Your task to perform on an android device: Open Maps and search for coffee Image 0: 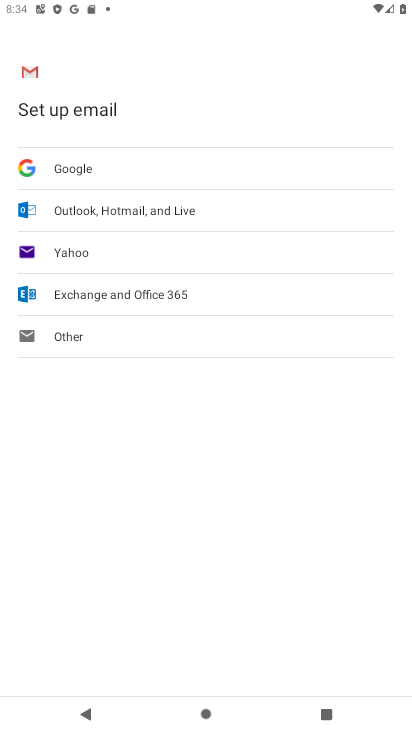
Step 0: press home button
Your task to perform on an android device: Open Maps and search for coffee Image 1: 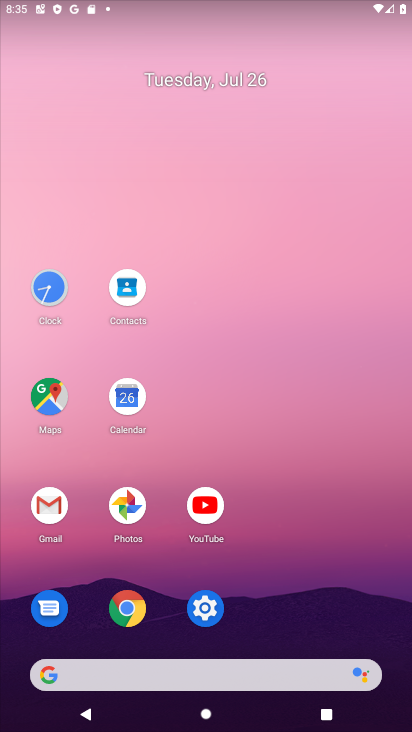
Step 1: click (36, 402)
Your task to perform on an android device: Open Maps and search for coffee Image 2: 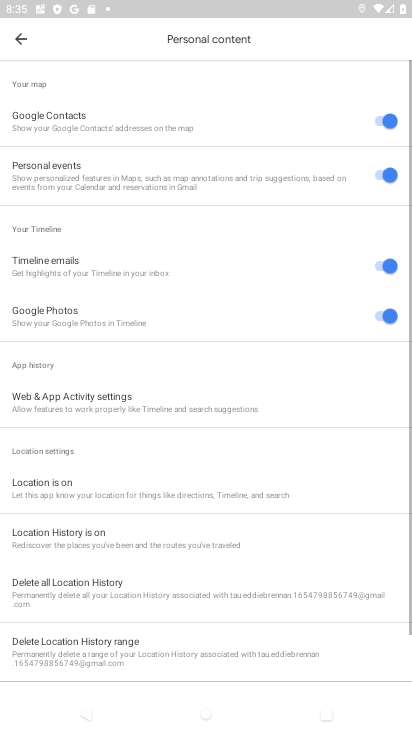
Step 2: click (17, 31)
Your task to perform on an android device: Open Maps and search for coffee Image 3: 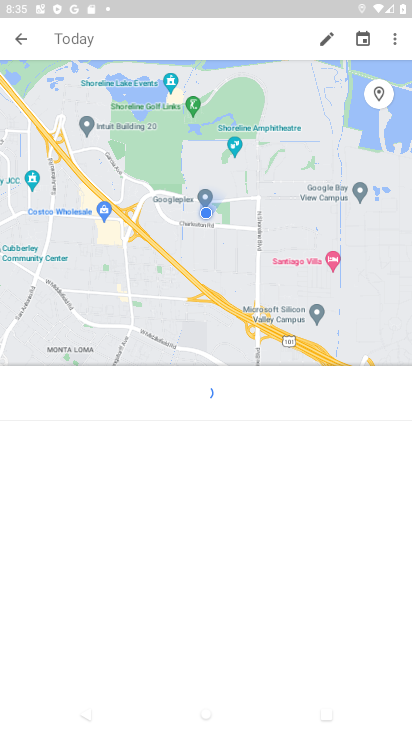
Step 3: click (20, 41)
Your task to perform on an android device: Open Maps and search for coffee Image 4: 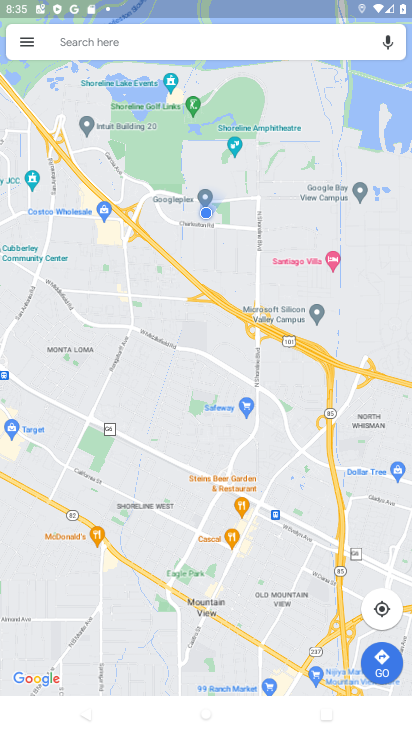
Step 4: click (96, 46)
Your task to perform on an android device: Open Maps and search for coffee Image 5: 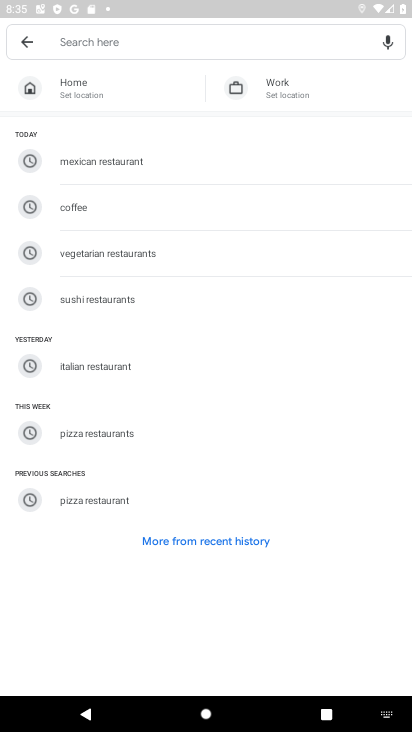
Step 5: click (70, 205)
Your task to perform on an android device: Open Maps and search for coffee Image 6: 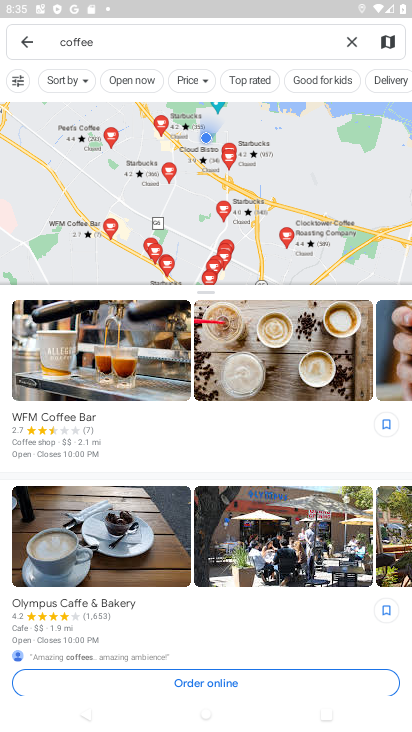
Step 6: task complete